Your task to perform on an android device: Search for pizza restaurants on Maps Image 0: 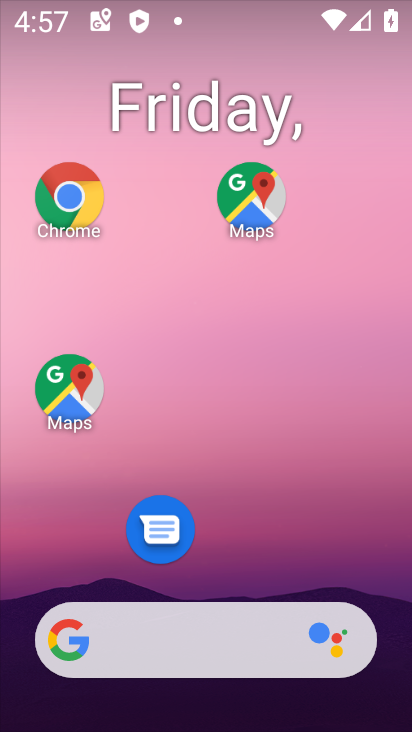
Step 0: click (254, 220)
Your task to perform on an android device: Search for pizza restaurants on Maps Image 1: 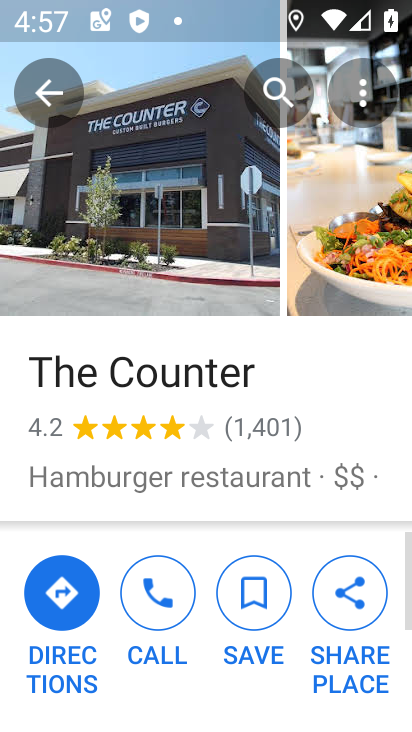
Step 1: click (43, 92)
Your task to perform on an android device: Search for pizza restaurants on Maps Image 2: 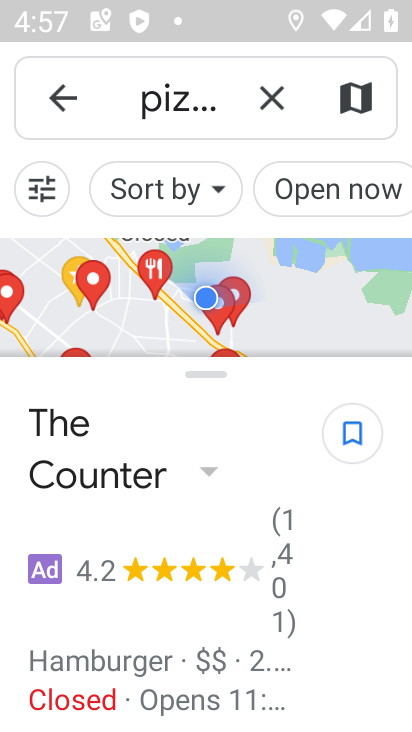
Step 2: click (222, 100)
Your task to perform on an android device: Search for pizza restaurants on Maps Image 3: 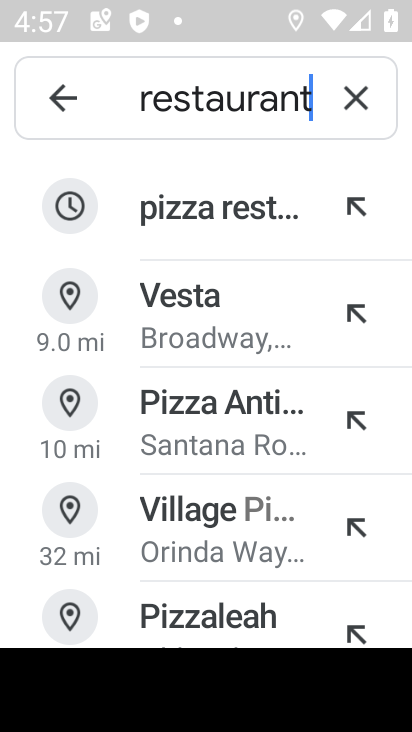
Step 3: click (213, 225)
Your task to perform on an android device: Search for pizza restaurants on Maps Image 4: 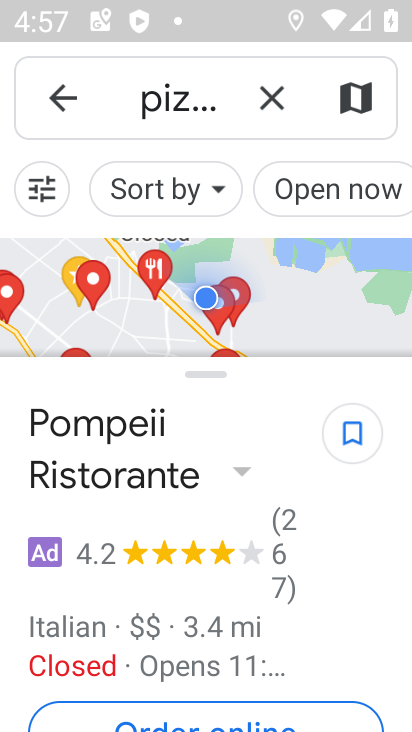
Step 4: task complete